Your task to perform on an android device: Open settings Image 0: 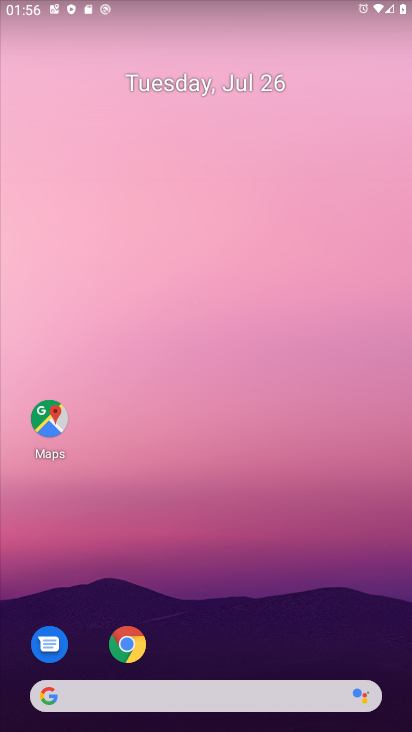
Step 0: drag from (292, 670) to (269, 95)
Your task to perform on an android device: Open settings Image 1: 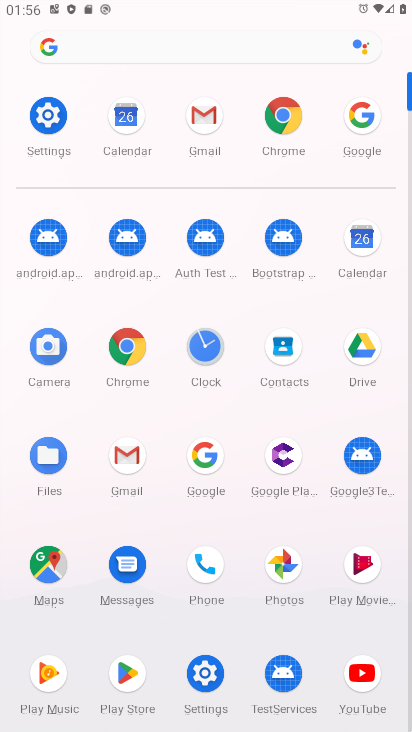
Step 1: click (43, 119)
Your task to perform on an android device: Open settings Image 2: 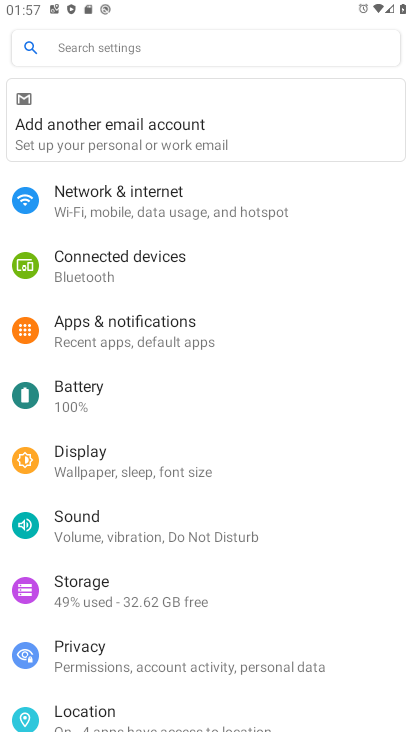
Step 2: task complete